Your task to perform on an android device: Go to network settings Image 0: 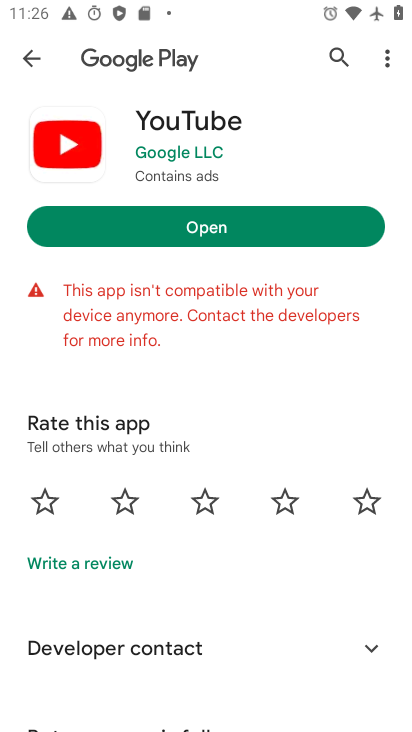
Step 0: press home button
Your task to perform on an android device: Go to network settings Image 1: 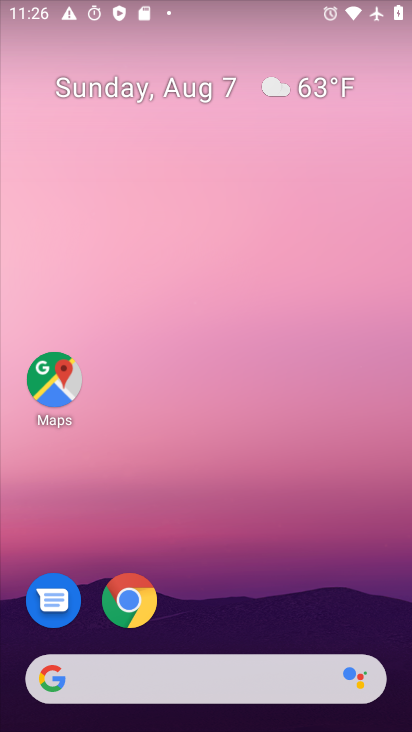
Step 1: drag from (284, 646) to (360, 41)
Your task to perform on an android device: Go to network settings Image 2: 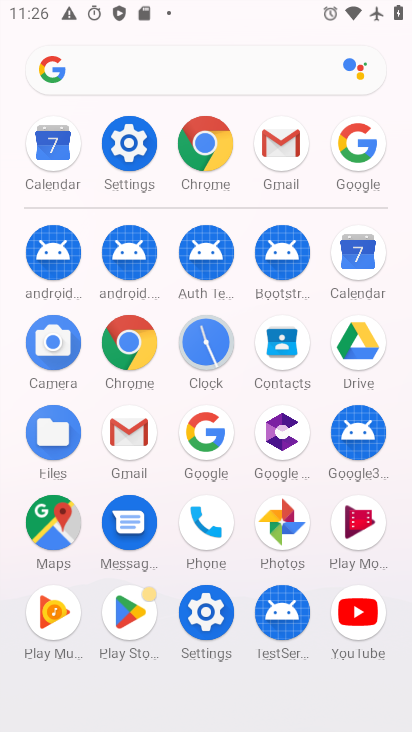
Step 2: click (132, 154)
Your task to perform on an android device: Go to network settings Image 3: 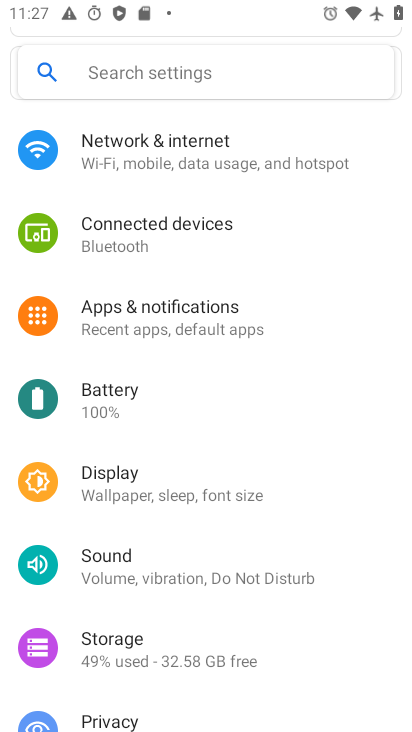
Step 3: click (170, 167)
Your task to perform on an android device: Go to network settings Image 4: 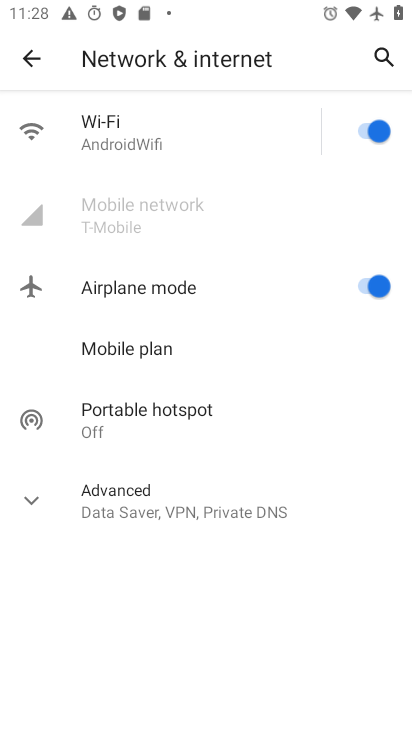
Step 4: click (164, 211)
Your task to perform on an android device: Go to network settings Image 5: 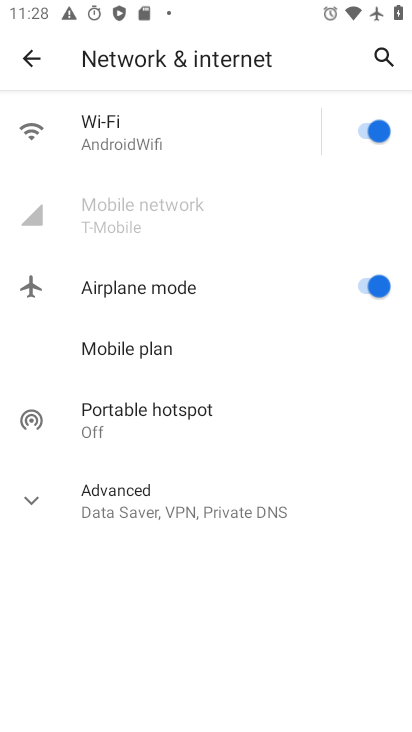
Step 5: task complete